Your task to perform on an android device: turn off data saver in the chrome app Image 0: 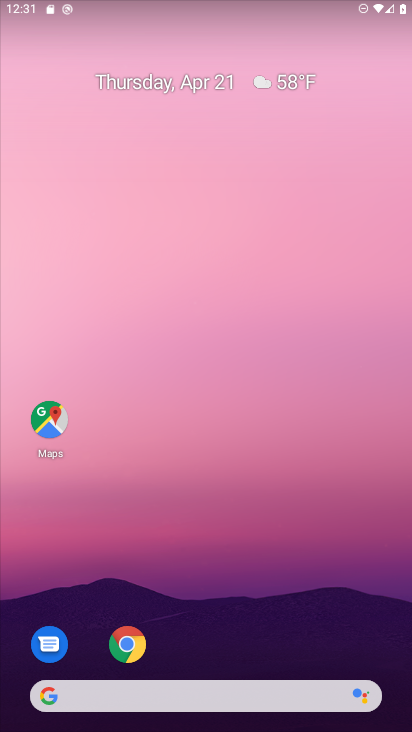
Step 0: drag from (197, 667) to (191, 173)
Your task to perform on an android device: turn off data saver in the chrome app Image 1: 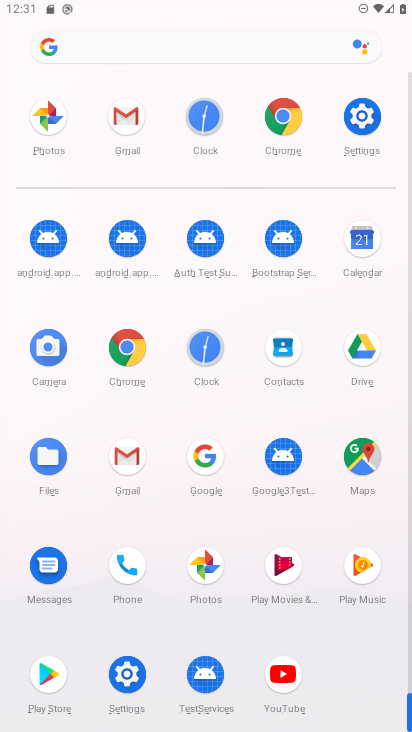
Step 1: click (283, 126)
Your task to perform on an android device: turn off data saver in the chrome app Image 2: 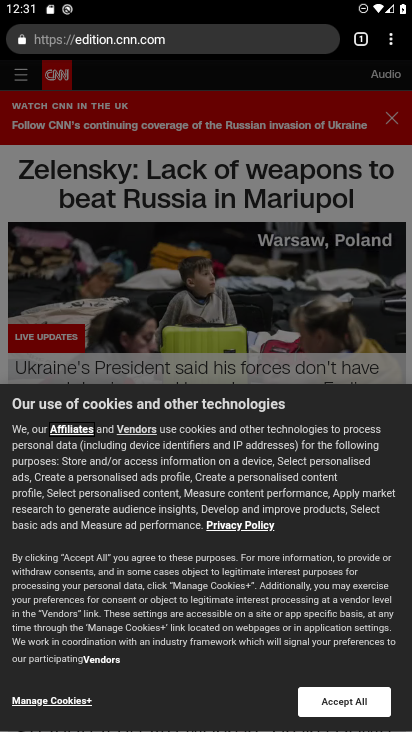
Step 2: click (390, 46)
Your task to perform on an android device: turn off data saver in the chrome app Image 3: 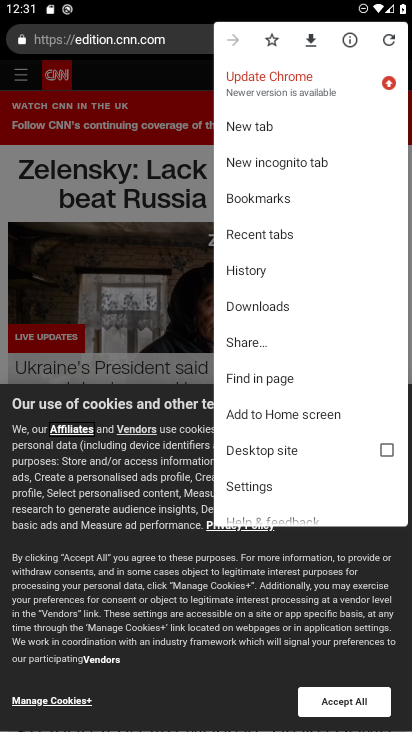
Step 3: drag from (298, 373) to (317, 150)
Your task to perform on an android device: turn off data saver in the chrome app Image 4: 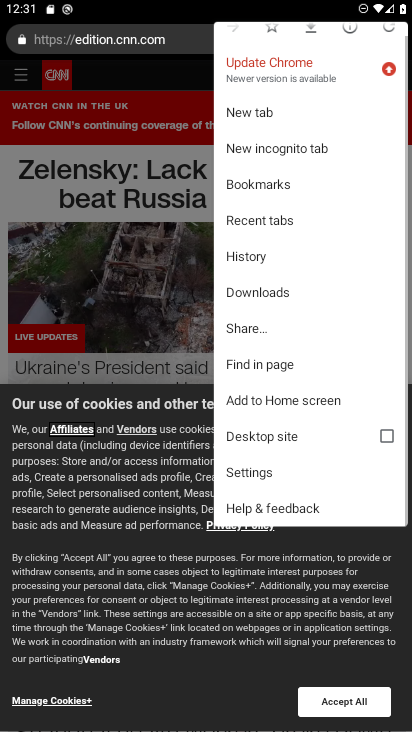
Step 4: click (249, 468)
Your task to perform on an android device: turn off data saver in the chrome app Image 5: 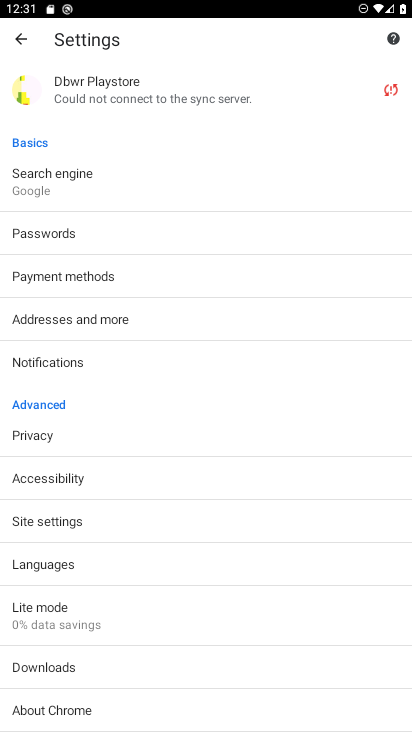
Step 5: drag from (213, 574) to (266, 214)
Your task to perform on an android device: turn off data saver in the chrome app Image 6: 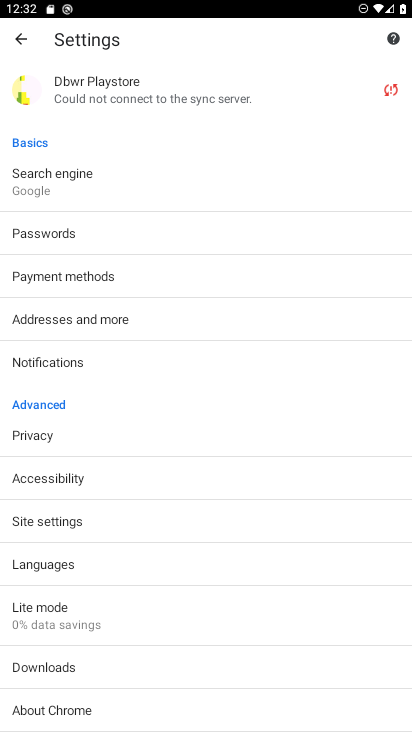
Step 6: drag from (131, 613) to (130, 368)
Your task to perform on an android device: turn off data saver in the chrome app Image 7: 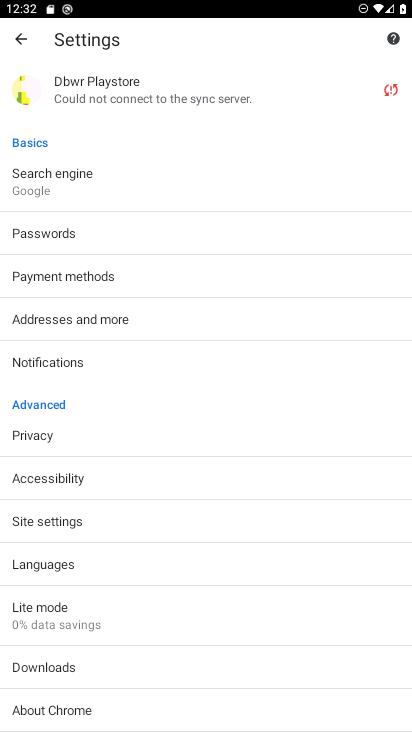
Step 7: drag from (152, 606) to (142, 341)
Your task to perform on an android device: turn off data saver in the chrome app Image 8: 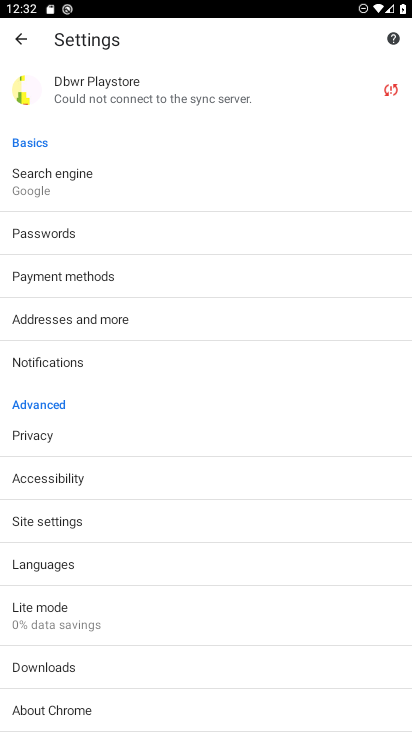
Step 8: drag from (154, 612) to (172, 451)
Your task to perform on an android device: turn off data saver in the chrome app Image 9: 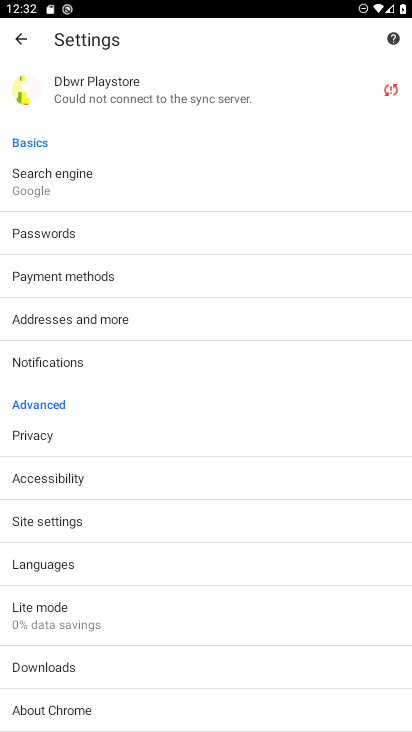
Step 9: drag from (149, 573) to (146, 267)
Your task to perform on an android device: turn off data saver in the chrome app Image 10: 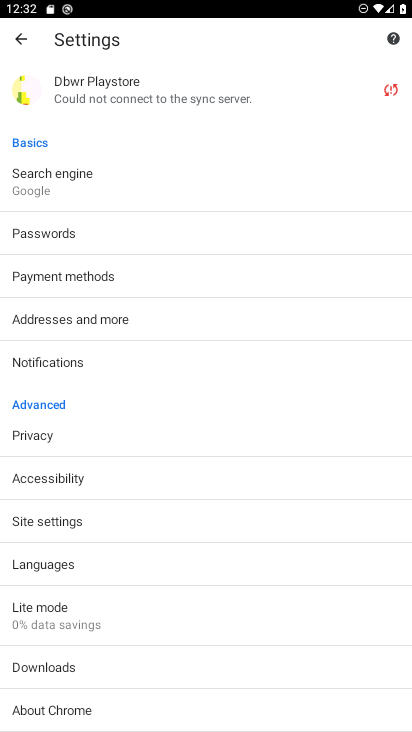
Step 10: press home button
Your task to perform on an android device: turn off data saver in the chrome app Image 11: 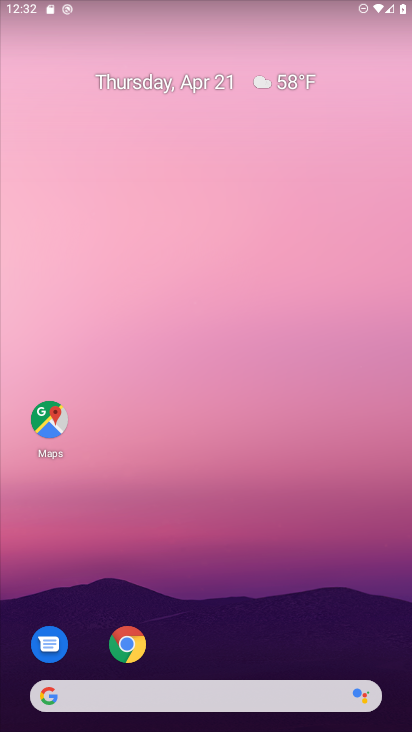
Step 11: click (124, 644)
Your task to perform on an android device: turn off data saver in the chrome app Image 12: 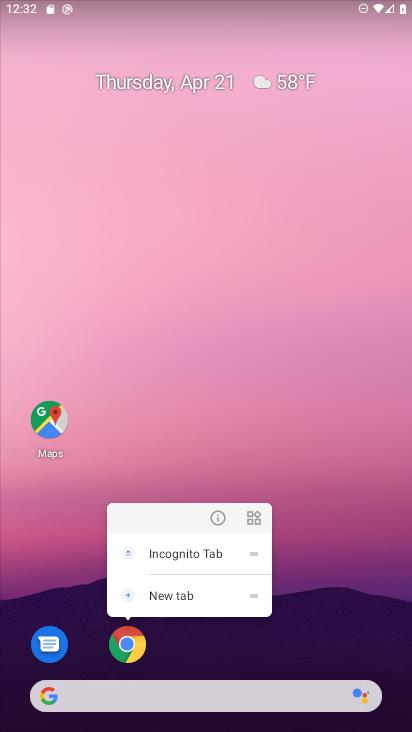
Step 12: click (216, 505)
Your task to perform on an android device: turn off data saver in the chrome app Image 13: 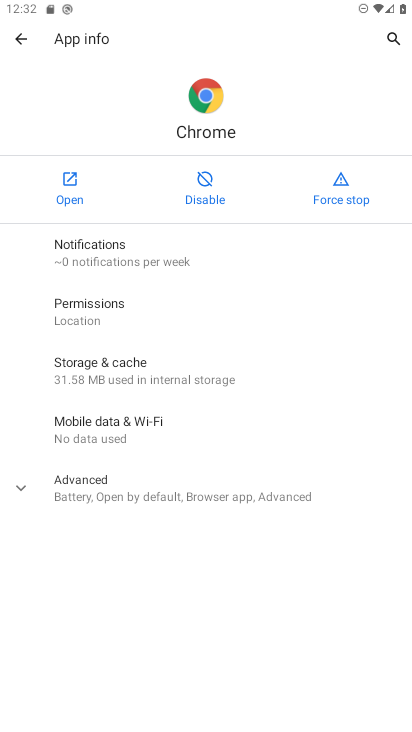
Step 13: click (75, 195)
Your task to perform on an android device: turn off data saver in the chrome app Image 14: 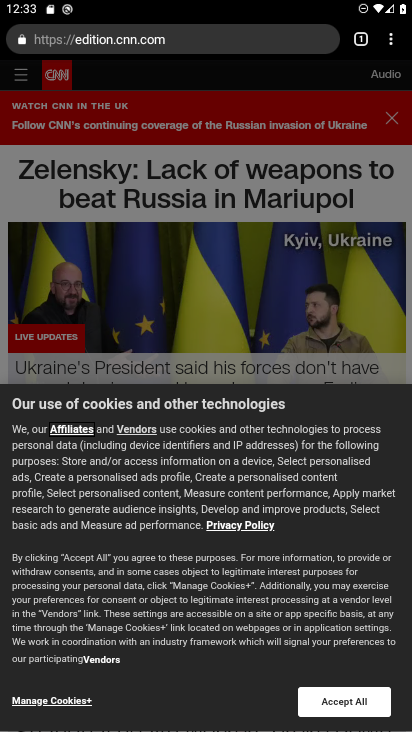
Step 14: click (395, 37)
Your task to perform on an android device: turn off data saver in the chrome app Image 15: 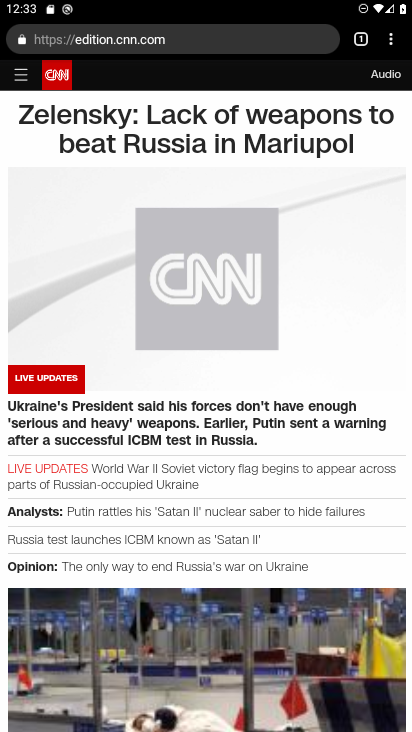
Step 15: click (387, 42)
Your task to perform on an android device: turn off data saver in the chrome app Image 16: 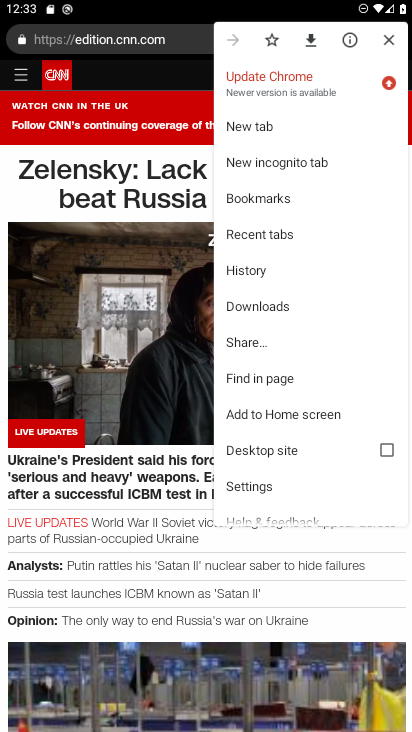
Step 16: drag from (272, 429) to (286, 118)
Your task to perform on an android device: turn off data saver in the chrome app Image 17: 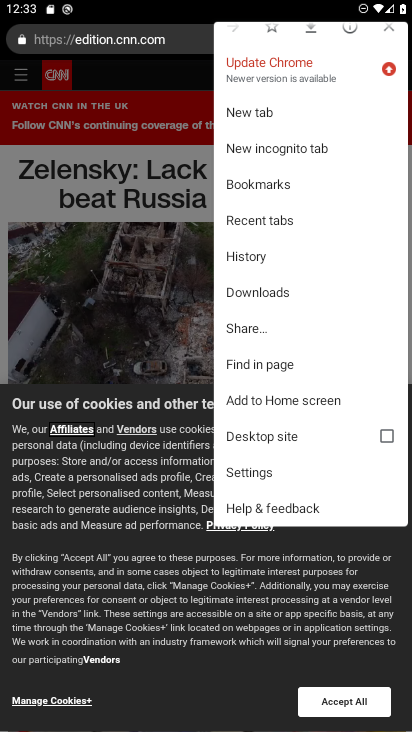
Step 17: click (272, 477)
Your task to perform on an android device: turn off data saver in the chrome app Image 18: 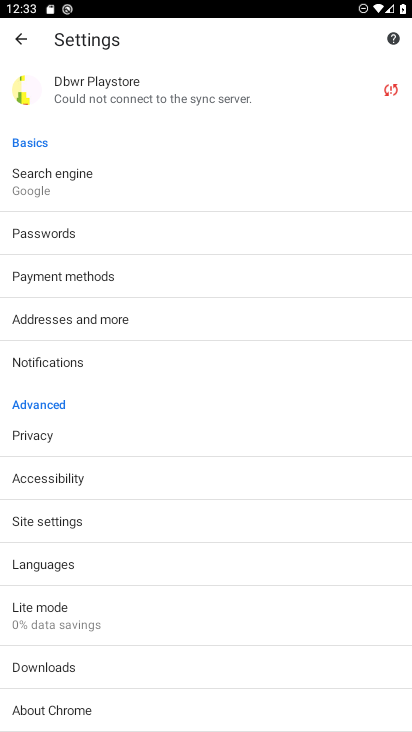
Step 18: click (81, 611)
Your task to perform on an android device: turn off data saver in the chrome app Image 19: 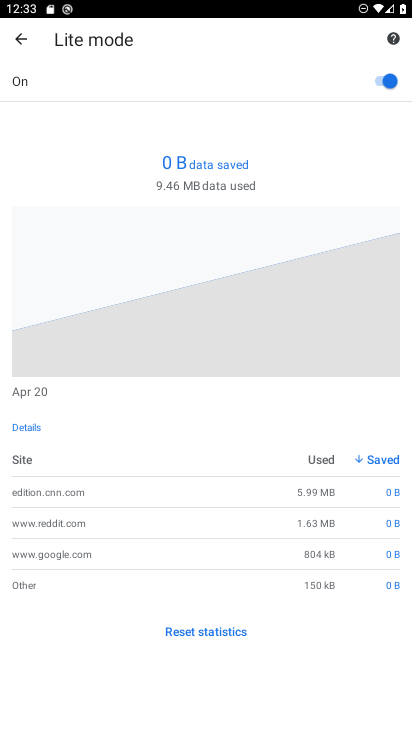
Step 19: click (380, 83)
Your task to perform on an android device: turn off data saver in the chrome app Image 20: 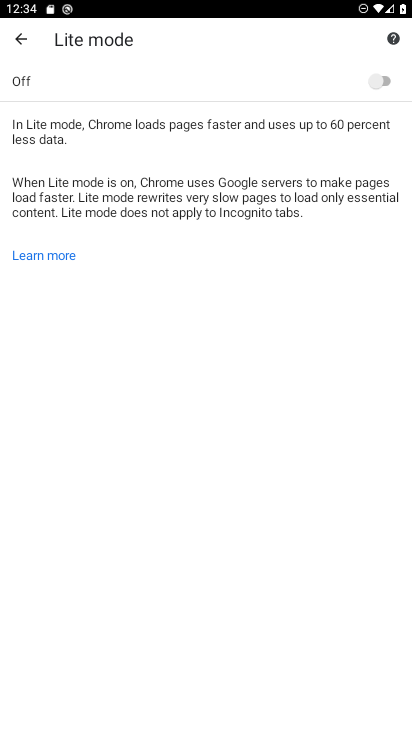
Step 20: task complete